Your task to perform on an android device: turn off translation in the chrome app Image 0: 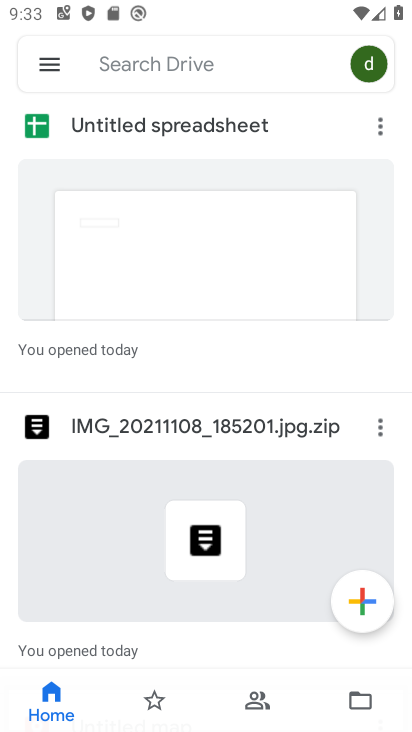
Step 0: press home button
Your task to perform on an android device: turn off translation in the chrome app Image 1: 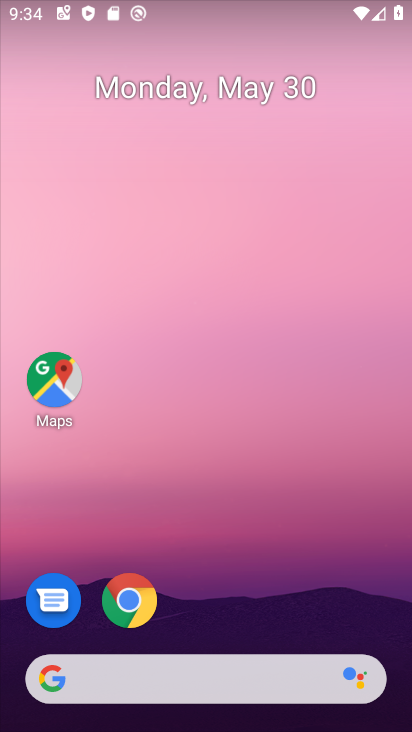
Step 1: drag from (275, 594) to (305, 233)
Your task to perform on an android device: turn off translation in the chrome app Image 2: 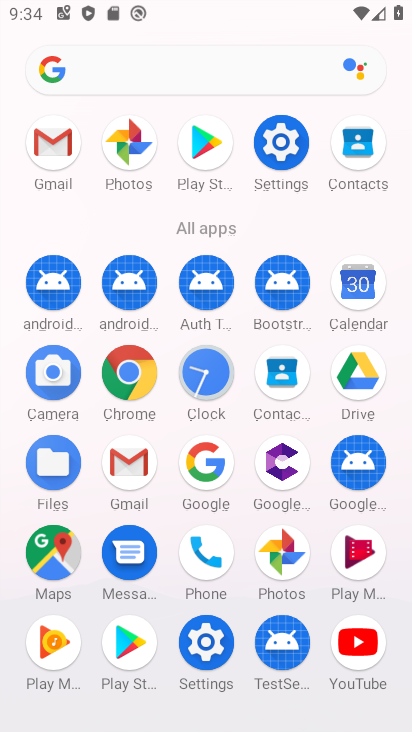
Step 2: click (132, 370)
Your task to perform on an android device: turn off translation in the chrome app Image 3: 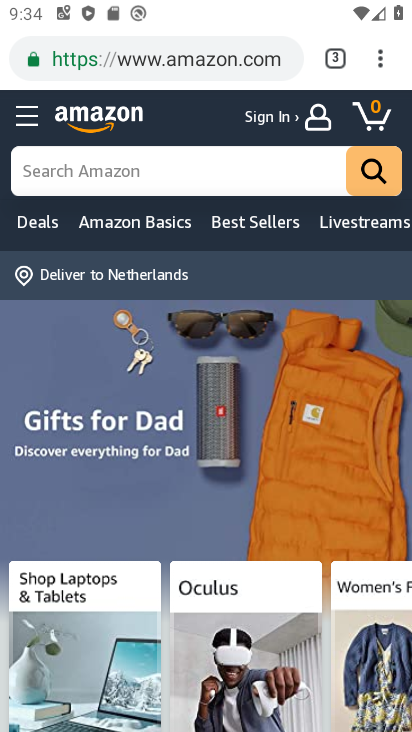
Step 3: drag from (381, 58) to (262, 625)
Your task to perform on an android device: turn off translation in the chrome app Image 4: 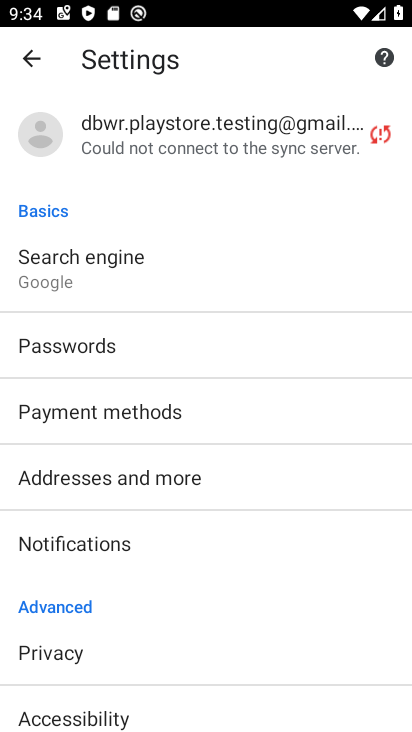
Step 4: drag from (261, 625) to (267, 242)
Your task to perform on an android device: turn off translation in the chrome app Image 5: 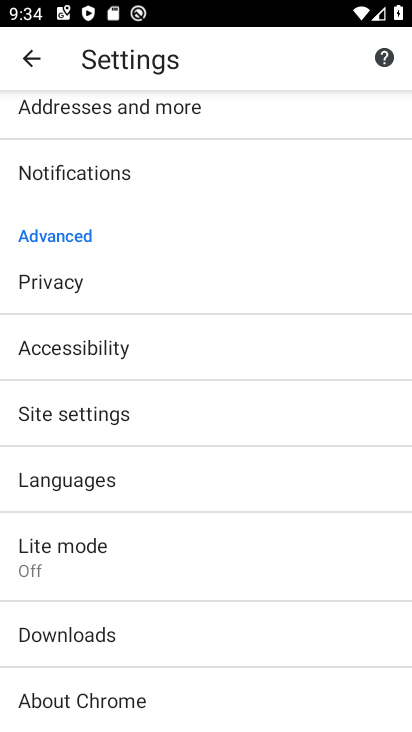
Step 5: click (85, 482)
Your task to perform on an android device: turn off translation in the chrome app Image 6: 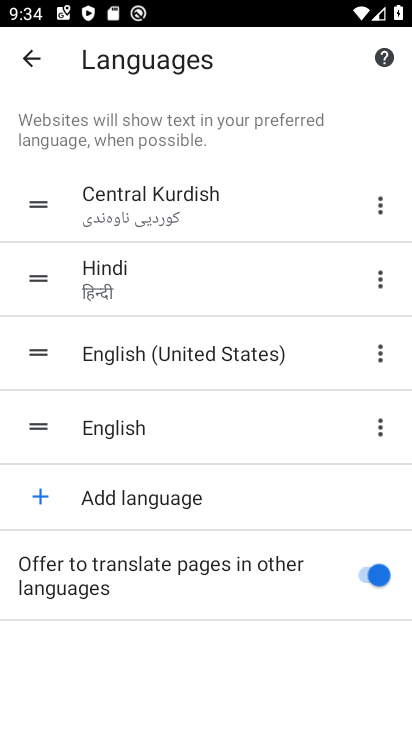
Step 6: click (383, 571)
Your task to perform on an android device: turn off translation in the chrome app Image 7: 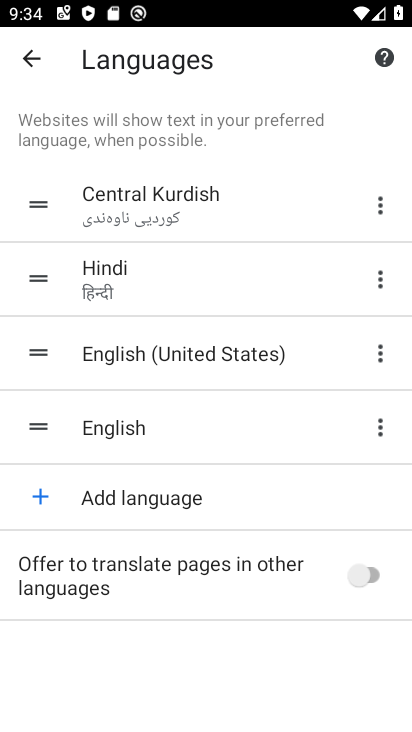
Step 7: task complete